Your task to perform on an android device: What's the US dollar exchange rateagainst the Swiss Franc? Image 0: 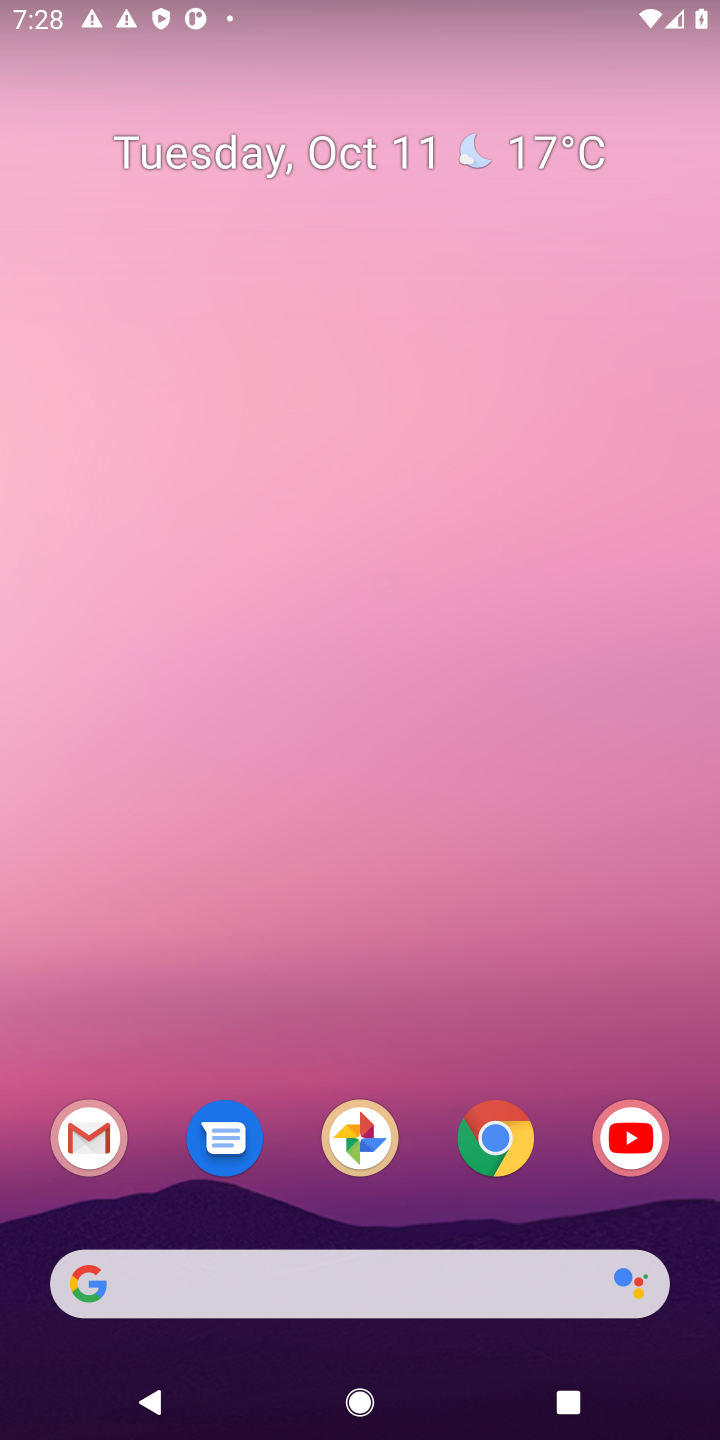
Step 0: click (278, 1271)
Your task to perform on an android device: What's the US dollar exchange rateagainst the Swiss Franc? Image 1: 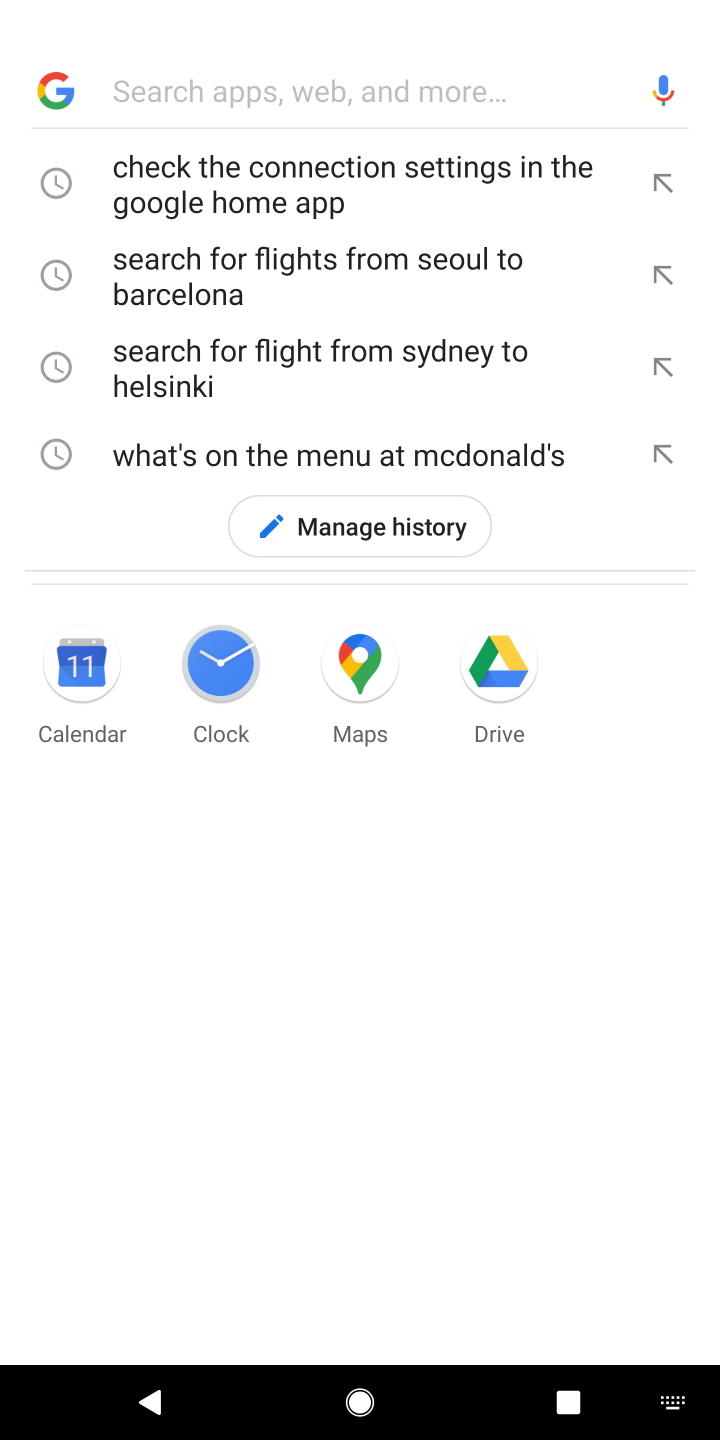
Step 1: type "What's the US dollar exchange rateagainst the Swiss Franc?"
Your task to perform on an android device: What's the US dollar exchange rateagainst the Swiss Franc? Image 2: 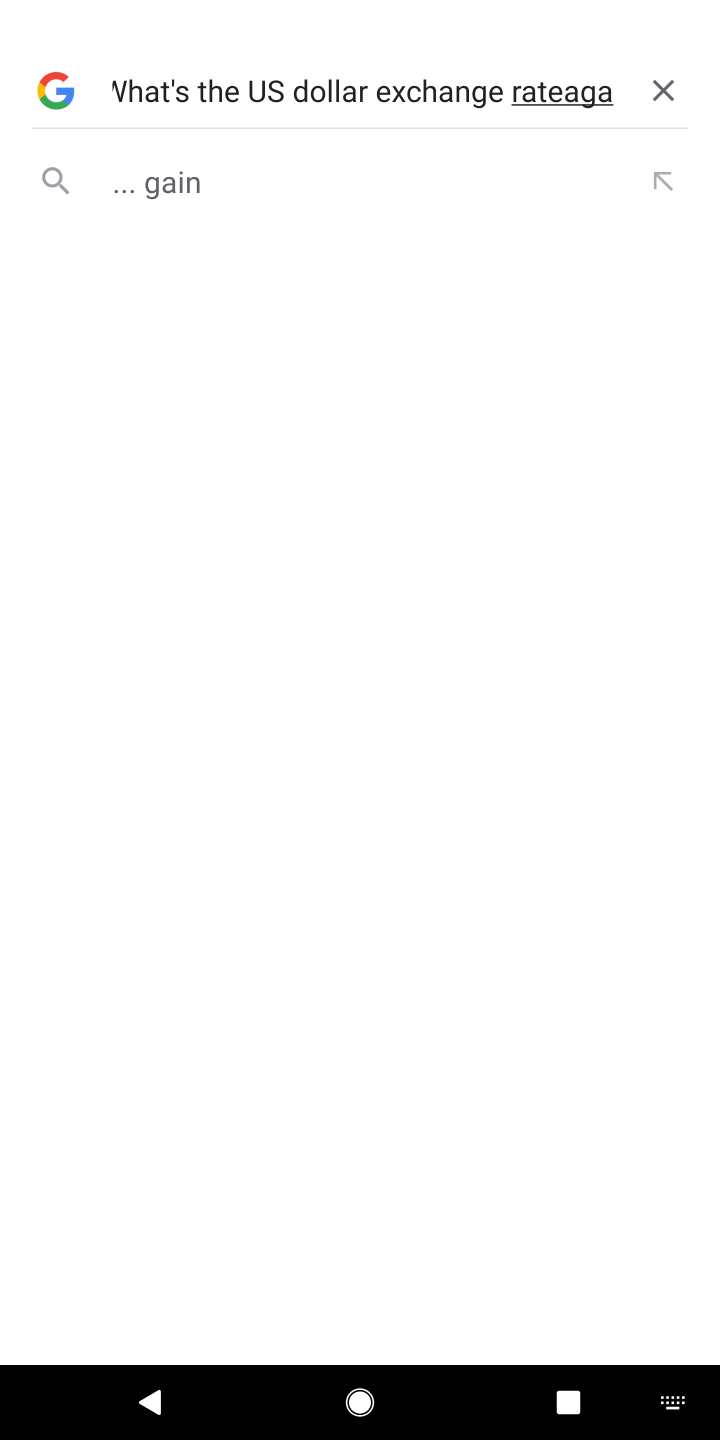
Step 2: type "inst the swiss france"
Your task to perform on an android device: What's the US dollar exchange rateagainst the Swiss Franc? Image 3: 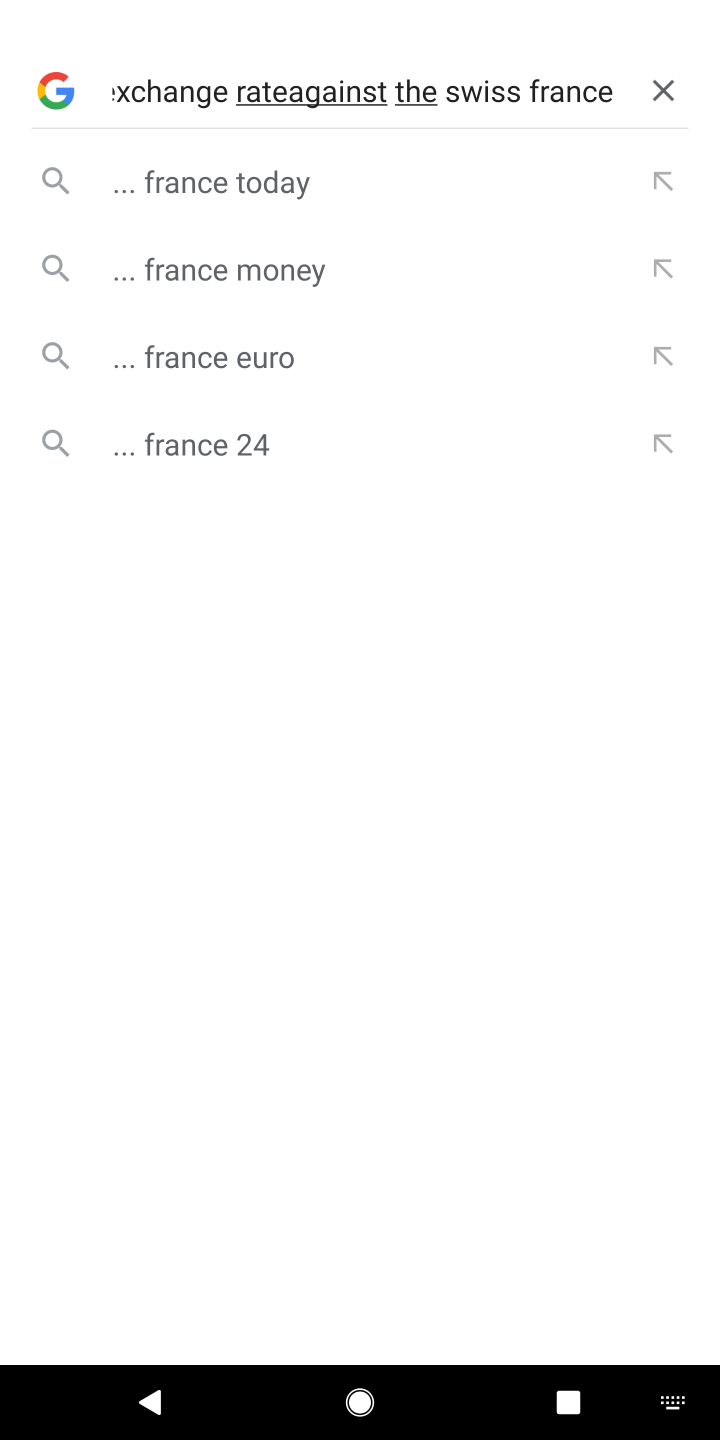
Step 3: click (181, 169)
Your task to perform on an android device: What's the US dollar exchange rateagainst the Swiss Franc? Image 4: 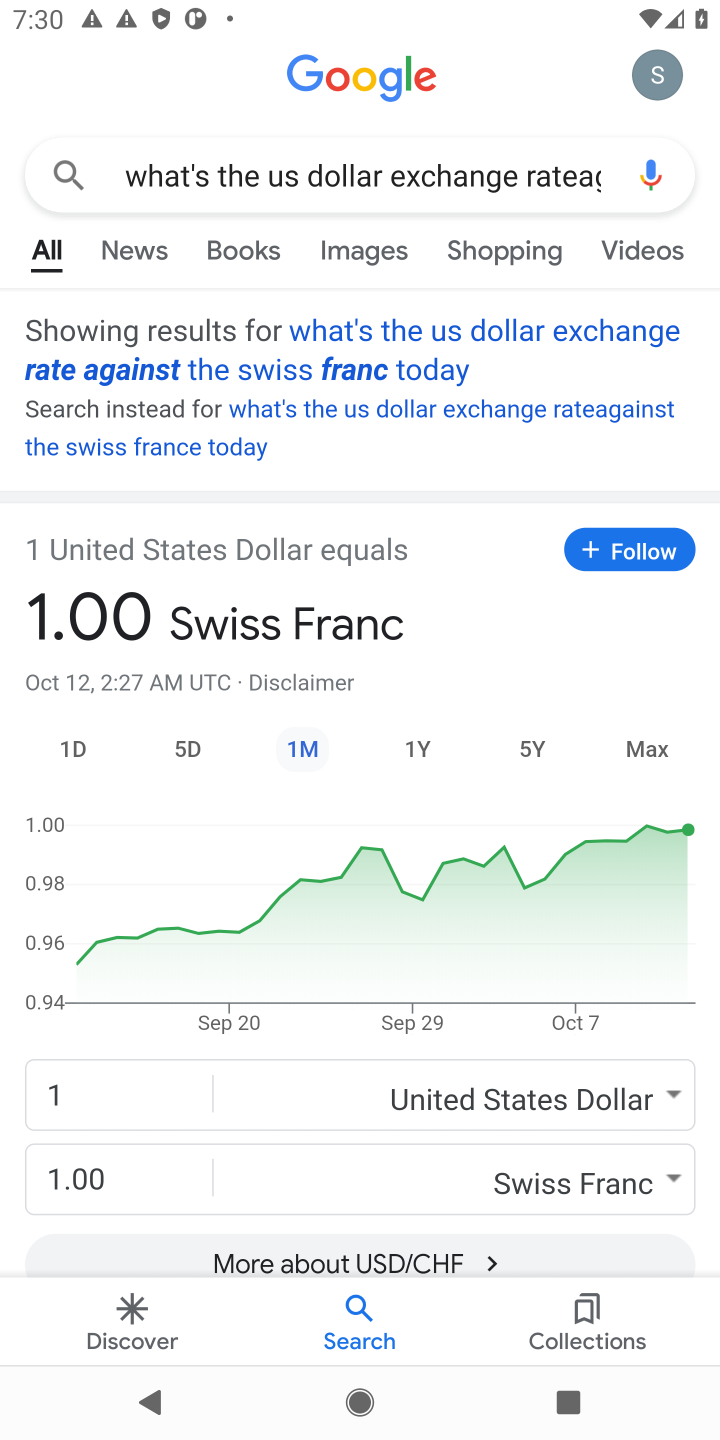
Step 4: task complete